Your task to perform on an android device: Do I have any events today? Image 0: 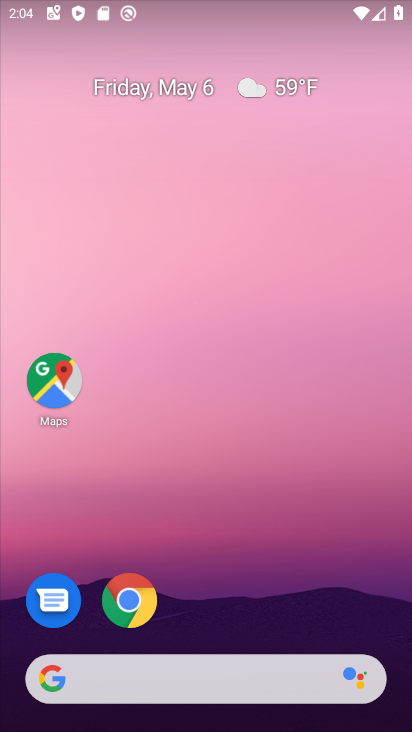
Step 0: drag from (243, 573) to (250, 133)
Your task to perform on an android device: Do I have any events today? Image 1: 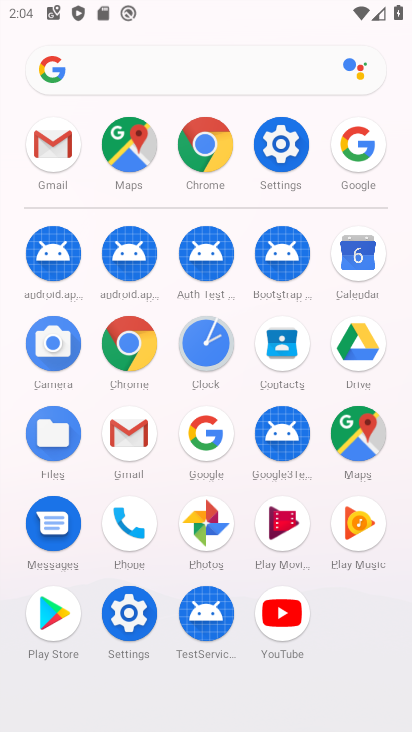
Step 1: click (362, 261)
Your task to perform on an android device: Do I have any events today? Image 2: 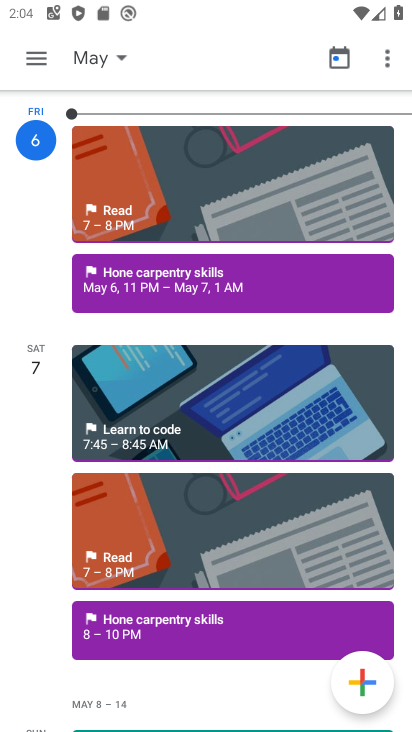
Step 2: click (113, 53)
Your task to perform on an android device: Do I have any events today? Image 3: 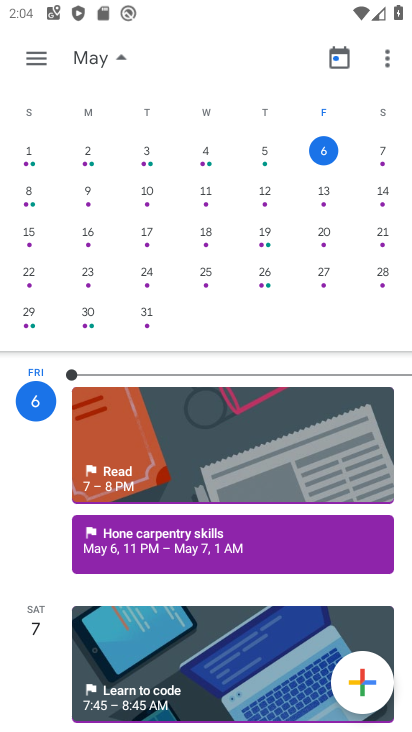
Step 3: click (333, 152)
Your task to perform on an android device: Do I have any events today? Image 4: 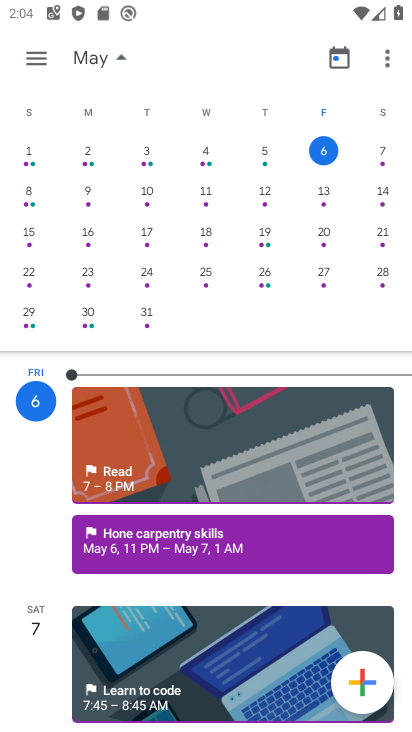
Step 4: click (326, 153)
Your task to perform on an android device: Do I have any events today? Image 5: 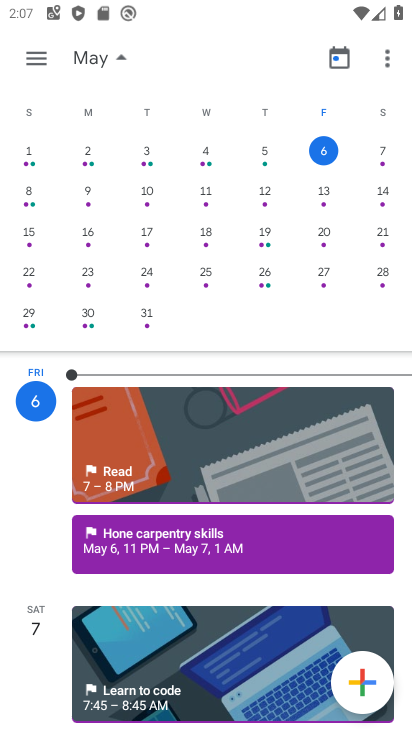
Step 5: task complete